Your task to perform on an android device: Check the weather Image 0: 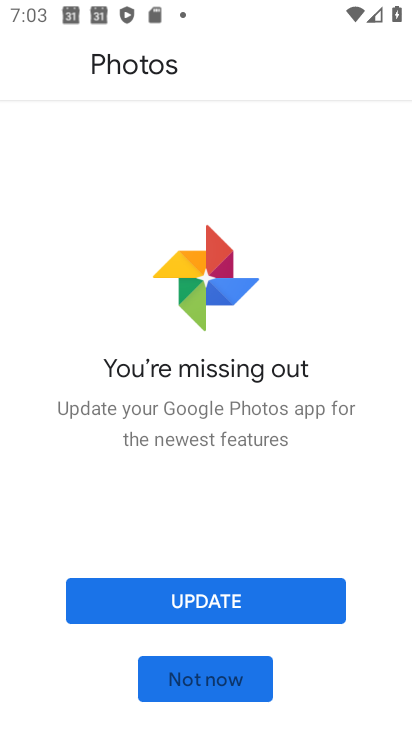
Step 0: press home button
Your task to perform on an android device: Check the weather Image 1: 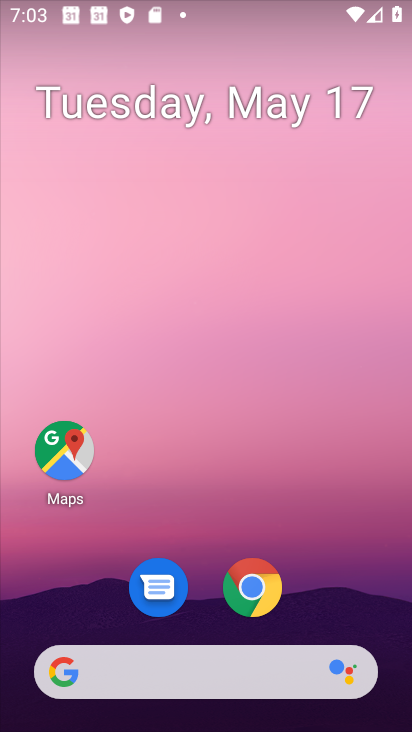
Step 1: drag from (238, 683) to (192, 189)
Your task to perform on an android device: Check the weather Image 2: 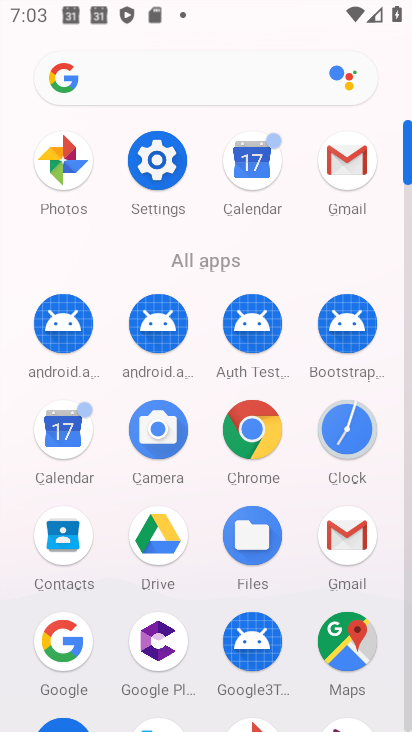
Step 2: click (178, 92)
Your task to perform on an android device: Check the weather Image 3: 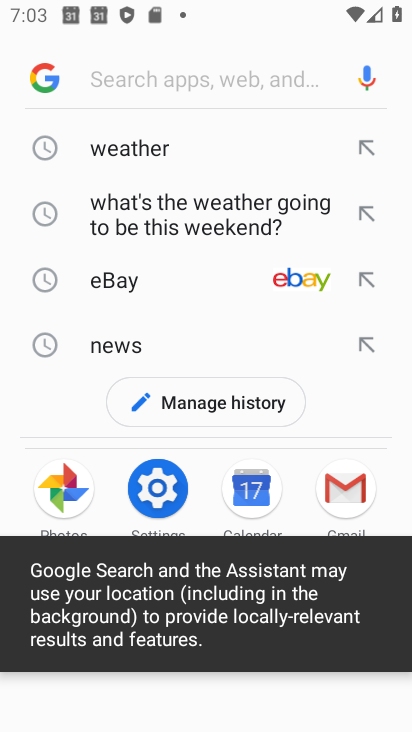
Step 3: click (127, 148)
Your task to perform on an android device: Check the weather Image 4: 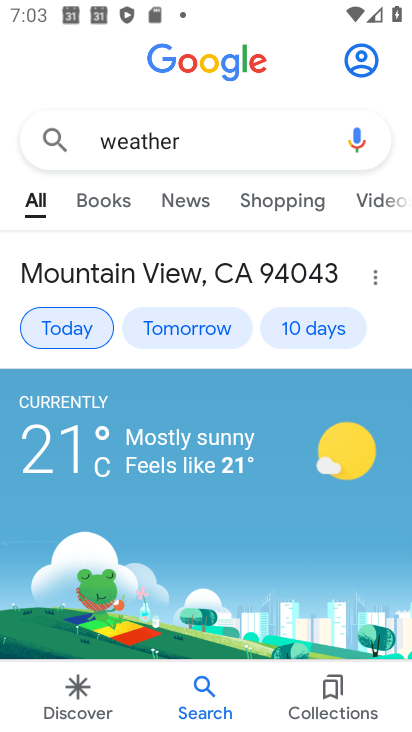
Step 4: task complete